Your task to perform on an android device: turn notification dots off Image 0: 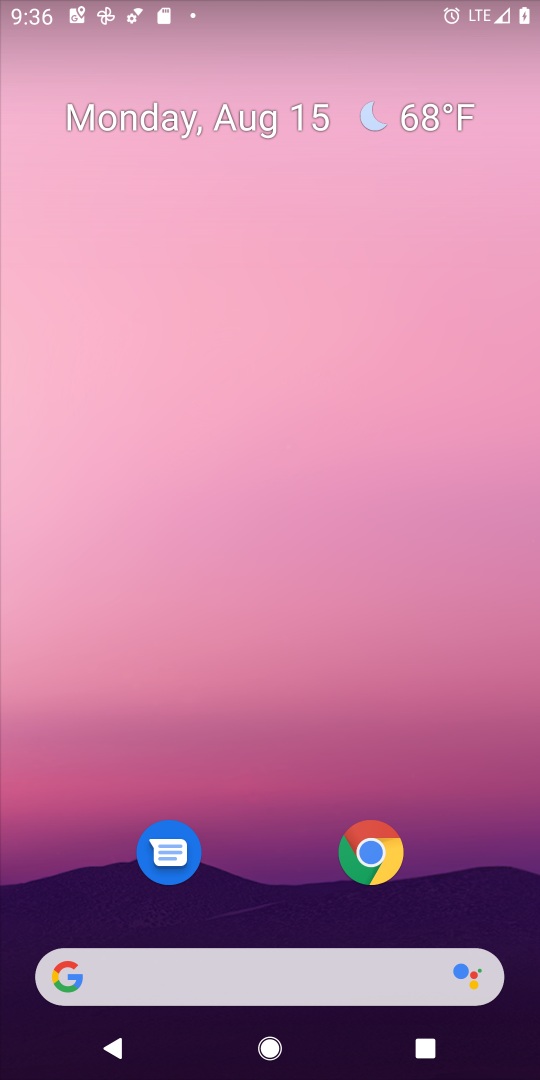
Step 0: drag from (262, 966) to (34, 164)
Your task to perform on an android device: turn notification dots off Image 1: 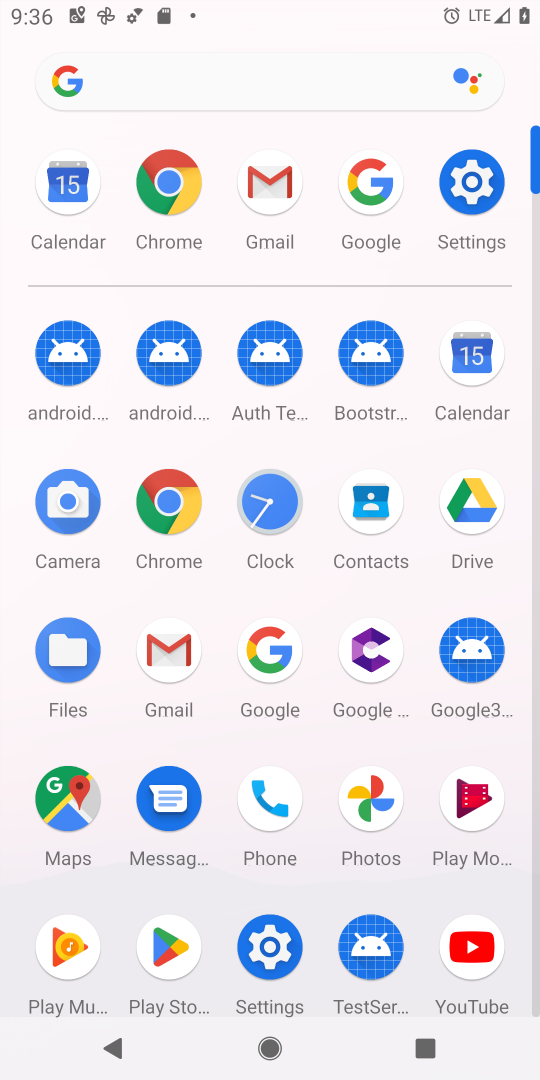
Step 1: click (471, 184)
Your task to perform on an android device: turn notification dots off Image 2: 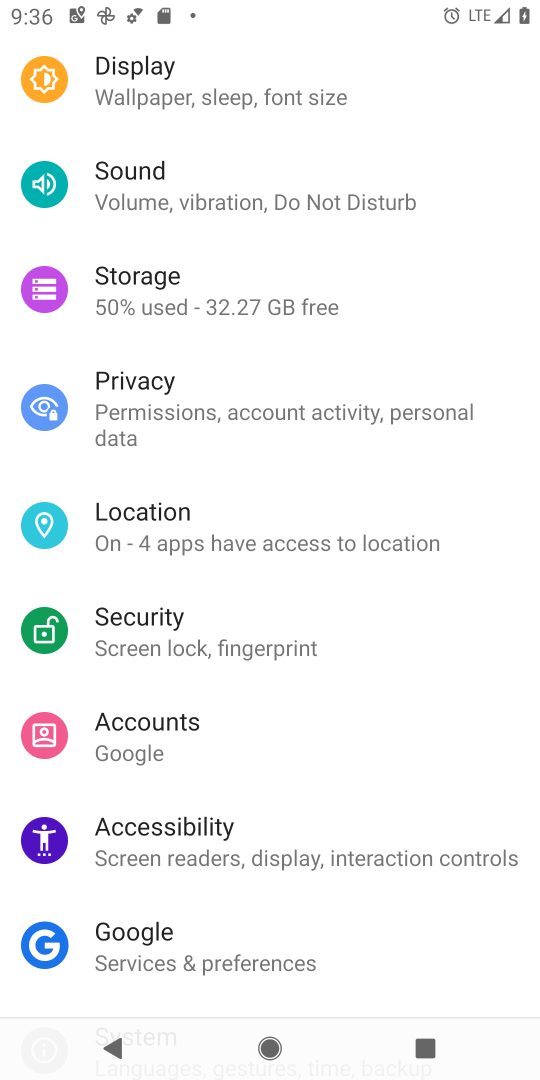
Step 2: drag from (200, 135) to (243, 447)
Your task to perform on an android device: turn notification dots off Image 3: 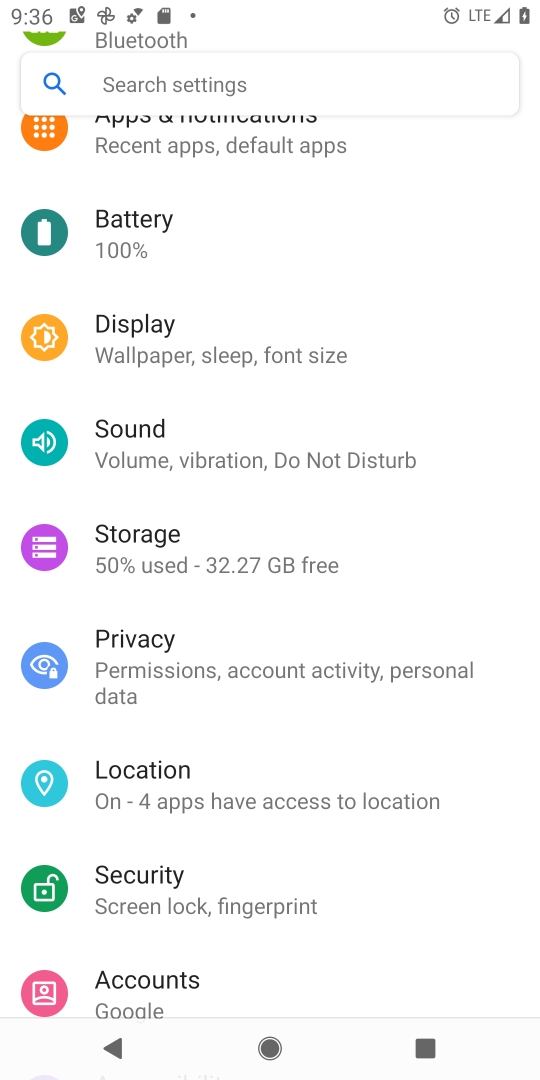
Step 3: drag from (240, 310) to (311, 539)
Your task to perform on an android device: turn notification dots off Image 4: 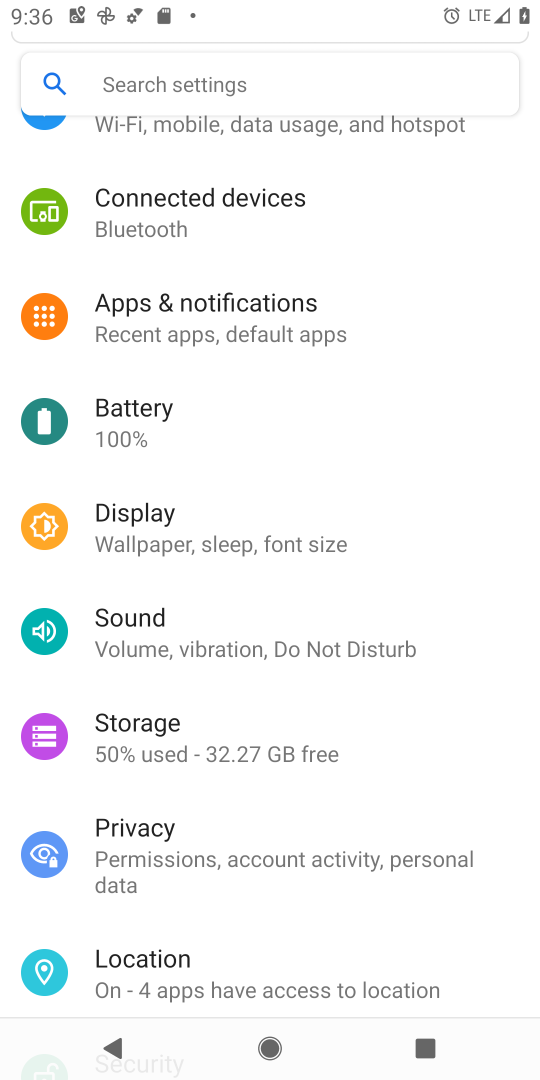
Step 4: click (285, 327)
Your task to perform on an android device: turn notification dots off Image 5: 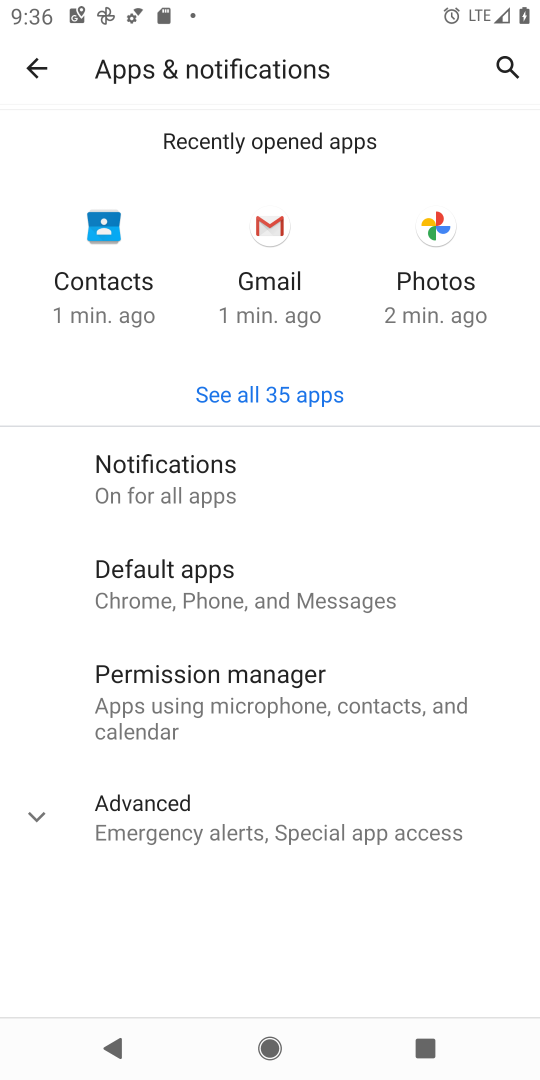
Step 5: click (193, 484)
Your task to perform on an android device: turn notification dots off Image 6: 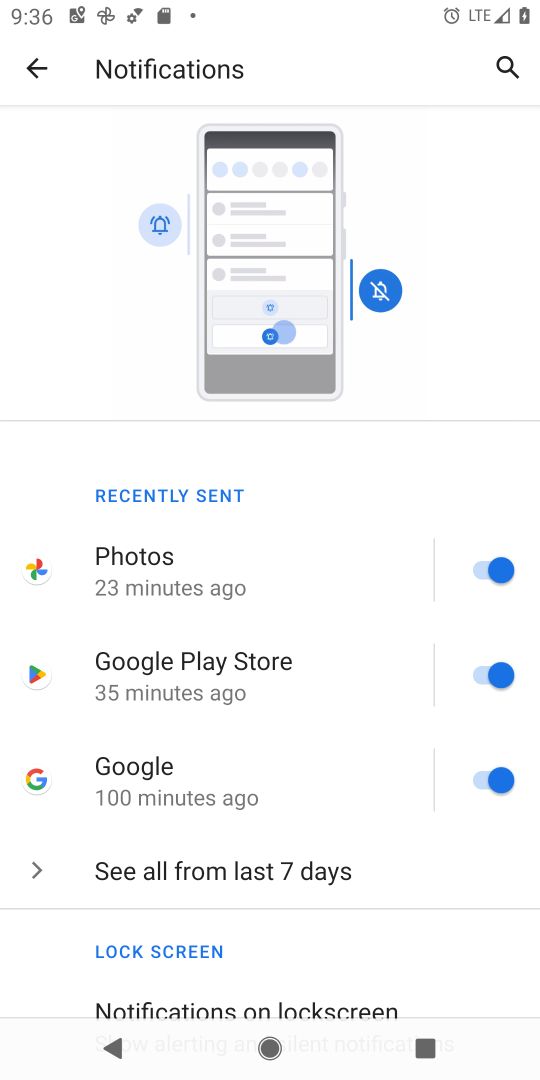
Step 6: drag from (274, 958) to (353, 470)
Your task to perform on an android device: turn notification dots off Image 7: 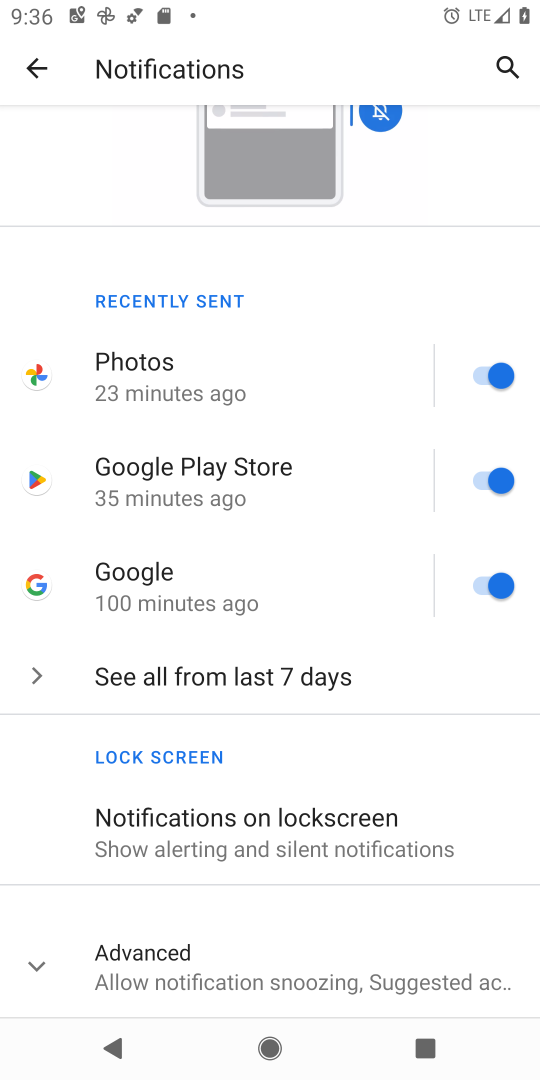
Step 7: click (281, 987)
Your task to perform on an android device: turn notification dots off Image 8: 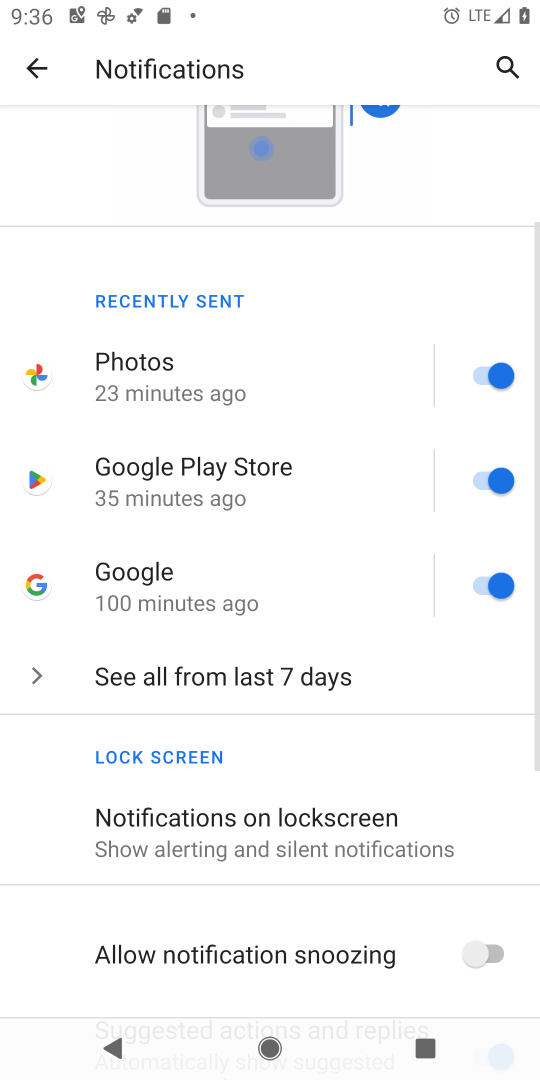
Step 8: drag from (290, 899) to (348, 669)
Your task to perform on an android device: turn notification dots off Image 9: 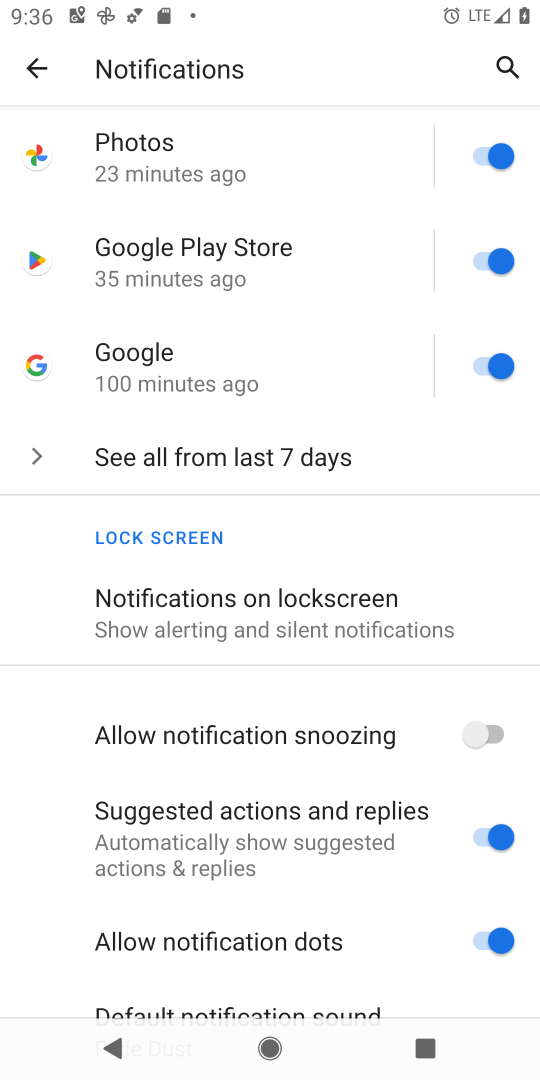
Step 9: click (474, 943)
Your task to perform on an android device: turn notification dots off Image 10: 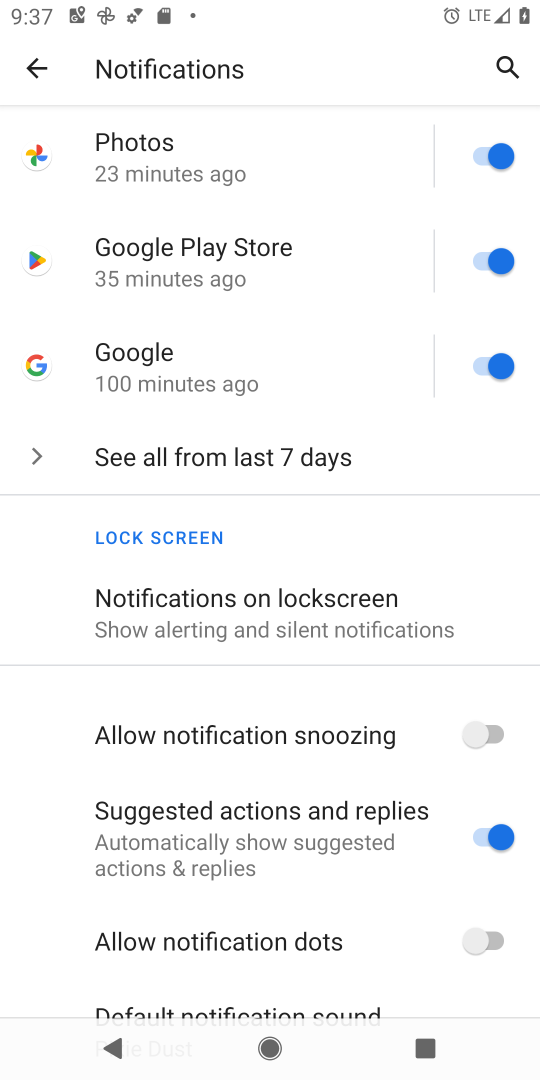
Step 10: task complete